Your task to perform on an android device: stop showing notifications on the lock screen Image 0: 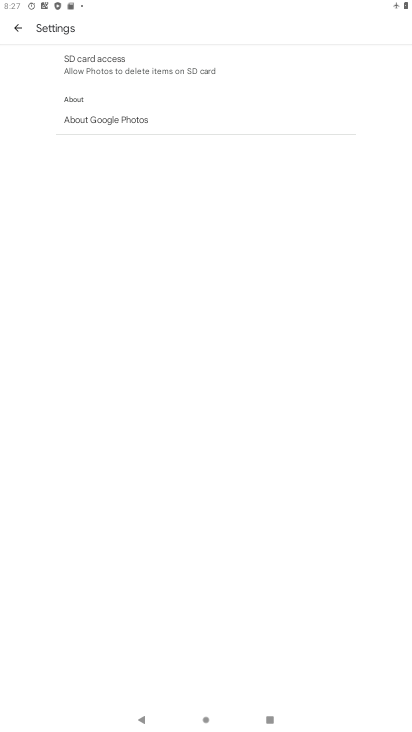
Step 0: press home button
Your task to perform on an android device: stop showing notifications on the lock screen Image 1: 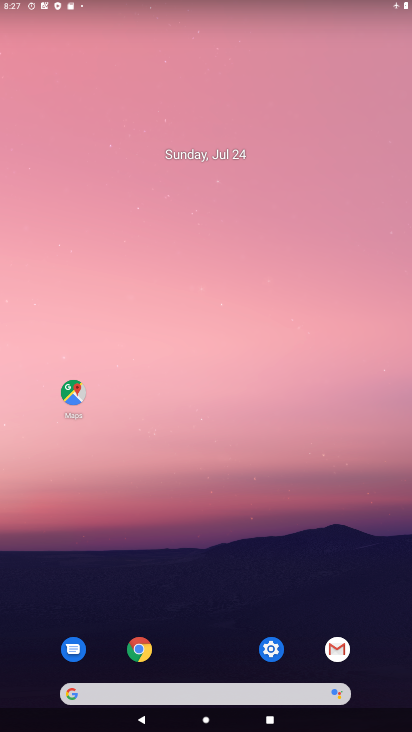
Step 1: click (269, 647)
Your task to perform on an android device: stop showing notifications on the lock screen Image 2: 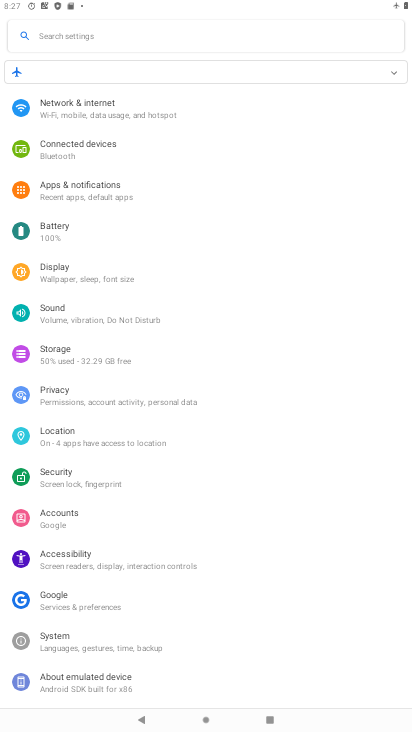
Step 2: click (81, 35)
Your task to perform on an android device: stop showing notifications on the lock screen Image 3: 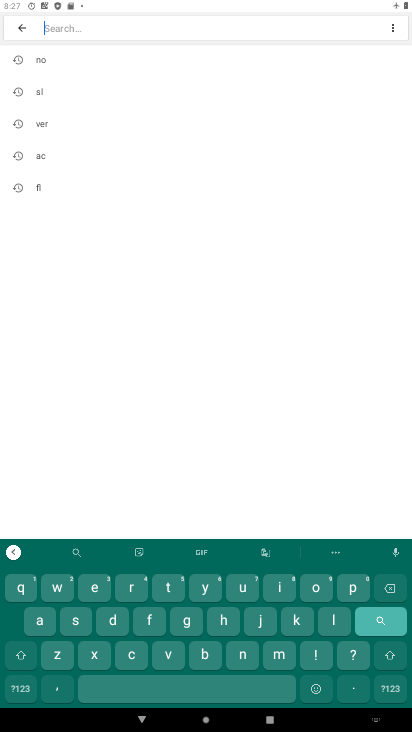
Step 3: click (75, 60)
Your task to perform on an android device: stop showing notifications on the lock screen Image 4: 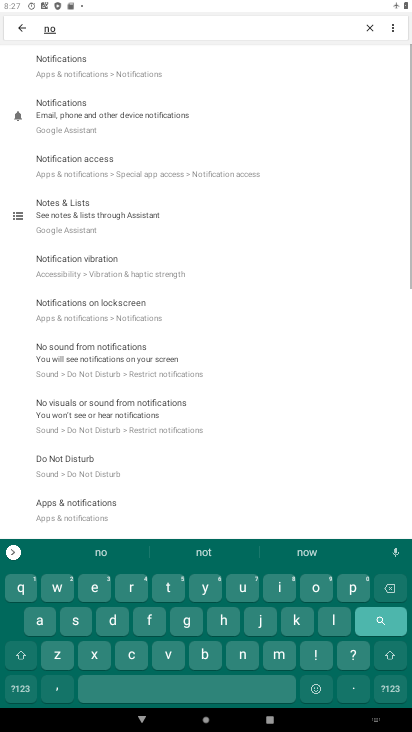
Step 4: click (88, 75)
Your task to perform on an android device: stop showing notifications on the lock screen Image 5: 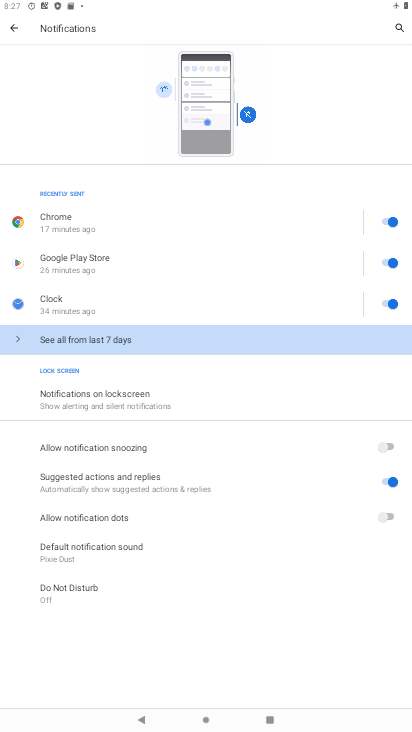
Step 5: click (121, 399)
Your task to perform on an android device: stop showing notifications on the lock screen Image 6: 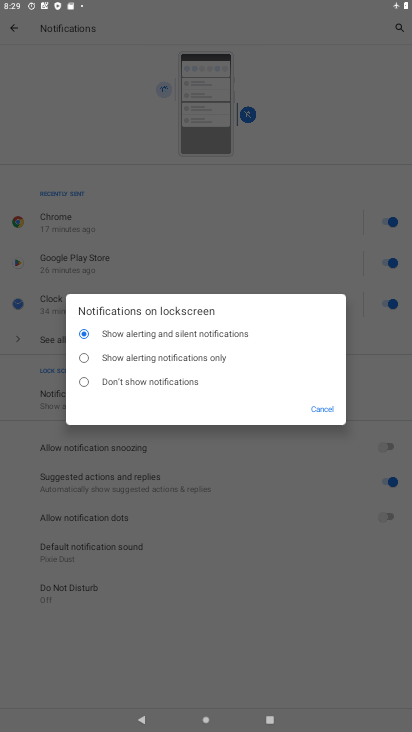
Step 6: task complete